Your task to perform on an android device: change timer sound Image 0: 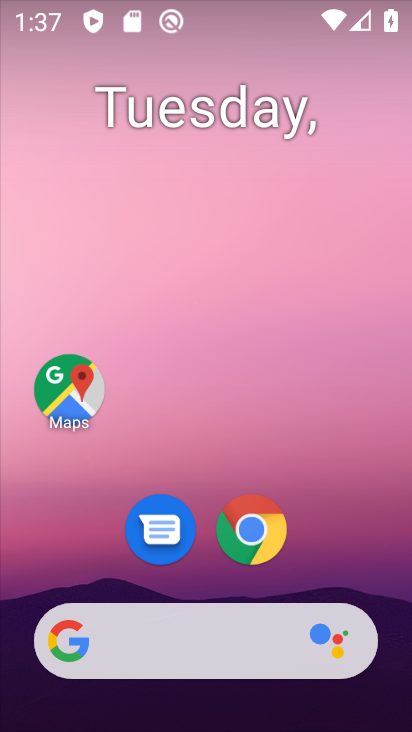
Step 0: drag from (390, 618) to (291, 71)
Your task to perform on an android device: change timer sound Image 1: 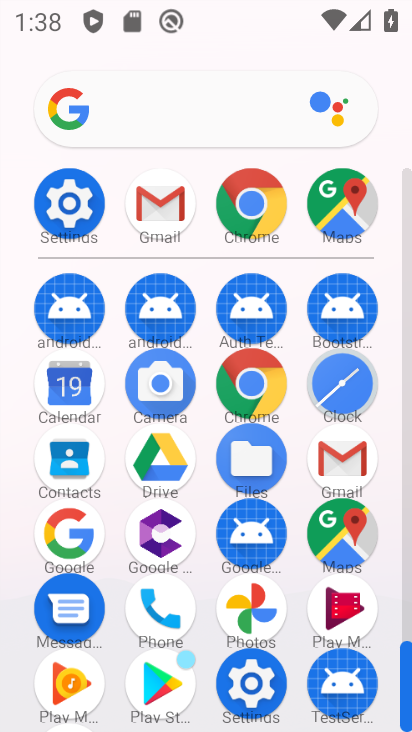
Step 1: click (347, 379)
Your task to perform on an android device: change timer sound Image 2: 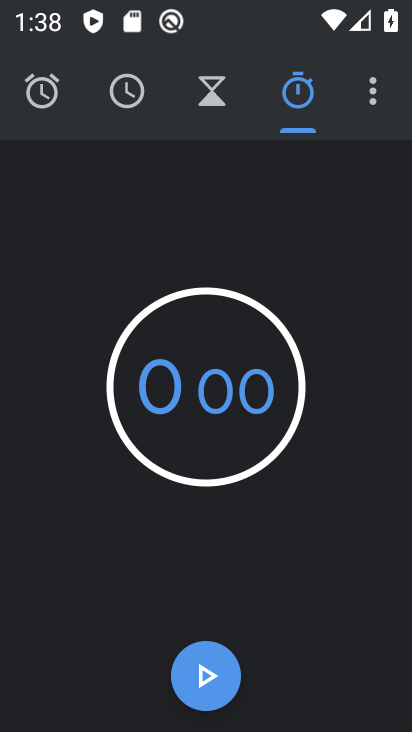
Step 2: click (364, 80)
Your task to perform on an android device: change timer sound Image 3: 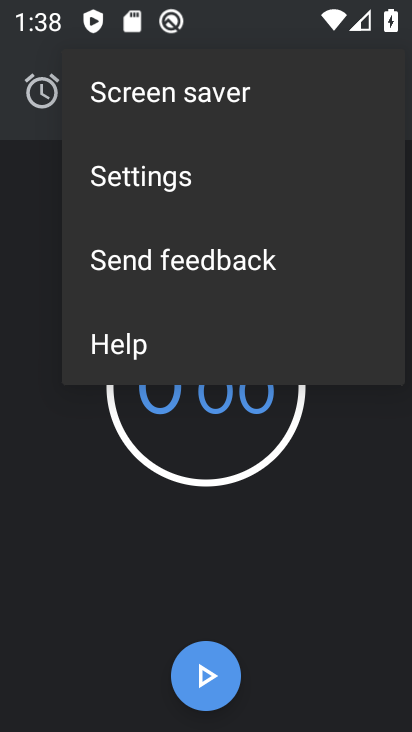
Step 3: click (206, 179)
Your task to perform on an android device: change timer sound Image 4: 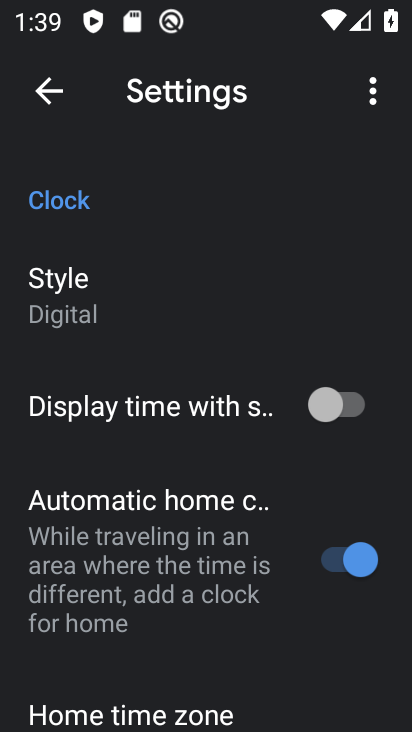
Step 4: drag from (75, 597) to (200, 108)
Your task to perform on an android device: change timer sound Image 5: 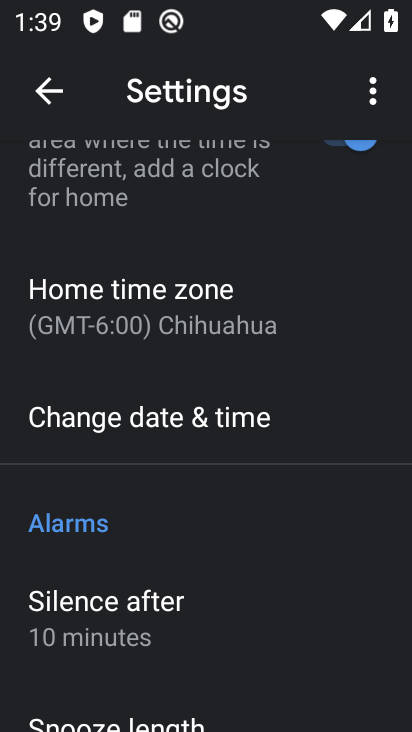
Step 5: drag from (155, 637) to (185, 158)
Your task to perform on an android device: change timer sound Image 6: 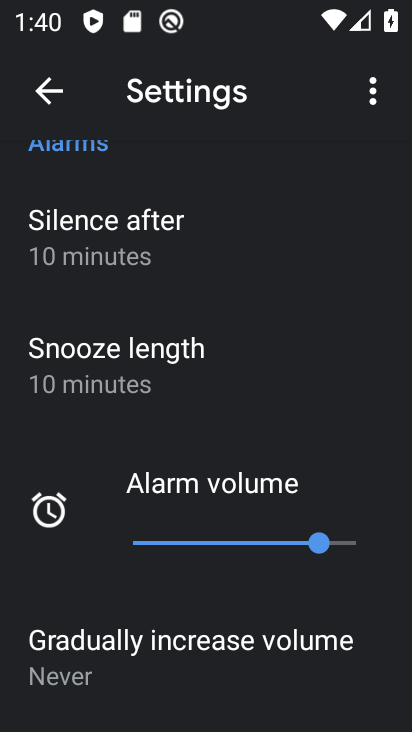
Step 6: drag from (86, 631) to (196, 159)
Your task to perform on an android device: change timer sound Image 7: 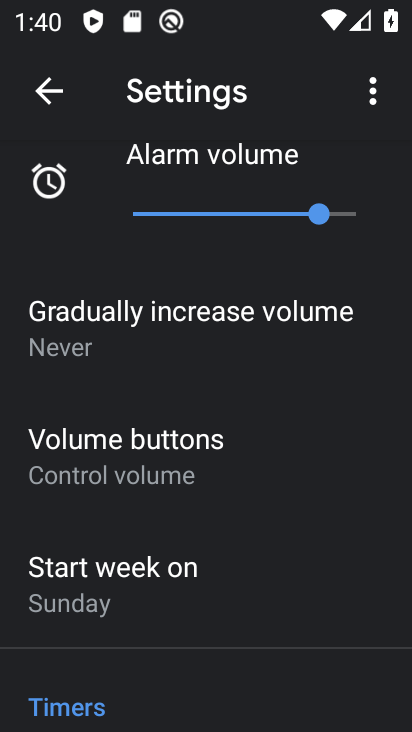
Step 7: drag from (104, 595) to (210, 166)
Your task to perform on an android device: change timer sound Image 8: 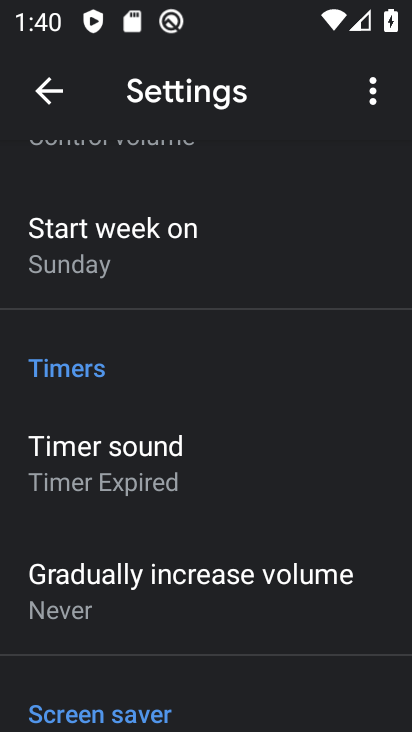
Step 8: click (132, 490)
Your task to perform on an android device: change timer sound Image 9: 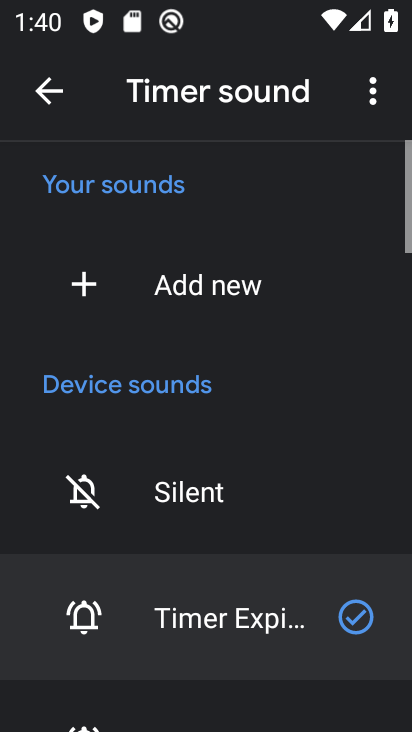
Step 9: click (209, 513)
Your task to perform on an android device: change timer sound Image 10: 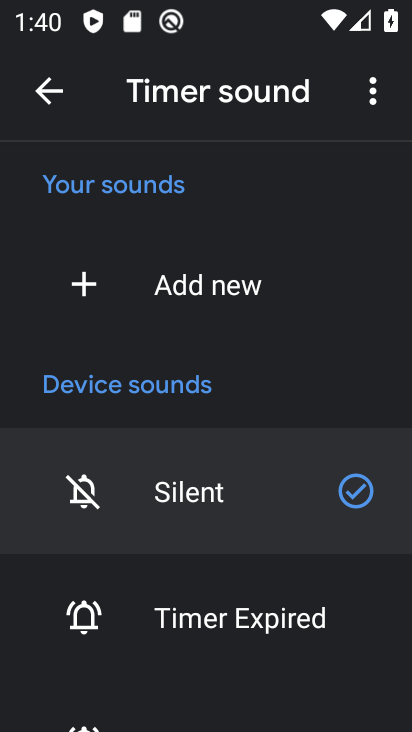
Step 10: task complete